Your task to perform on an android device: Turn on the flashlight Image 0: 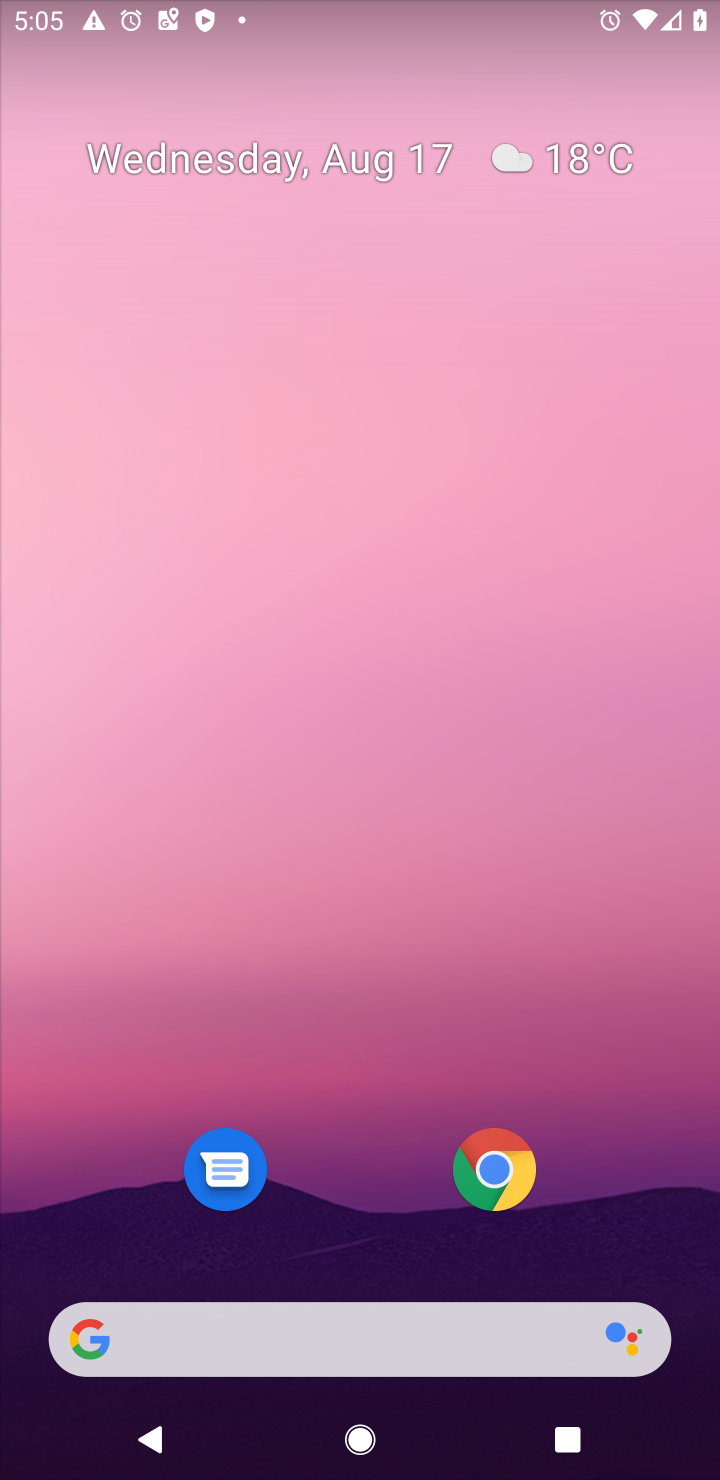
Step 0: drag from (444, 12) to (380, 831)
Your task to perform on an android device: Turn on the flashlight Image 1: 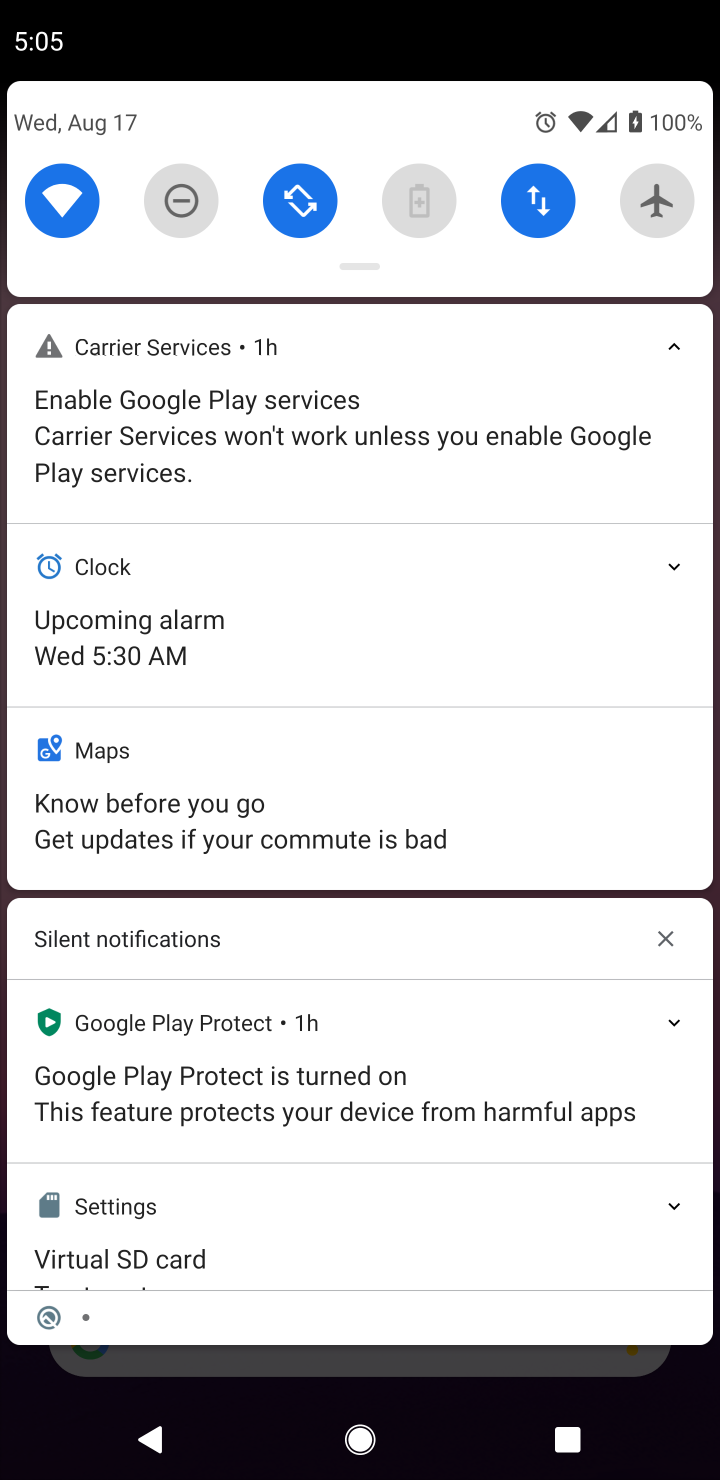
Step 1: task complete